Your task to perform on an android device: Search for sushi restaurants on Maps Image 0: 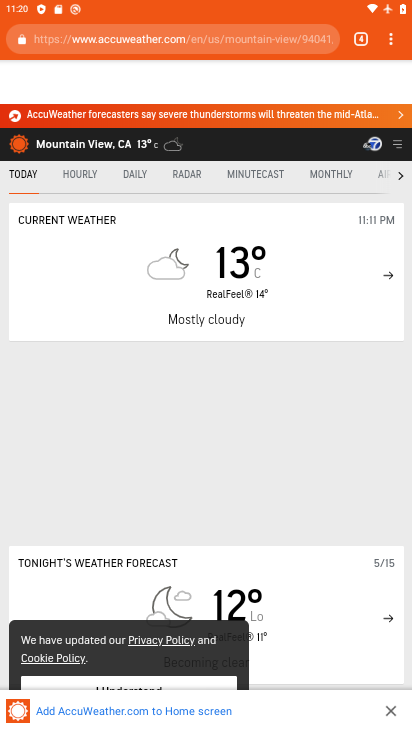
Step 0: press home button
Your task to perform on an android device: Search for sushi restaurants on Maps Image 1: 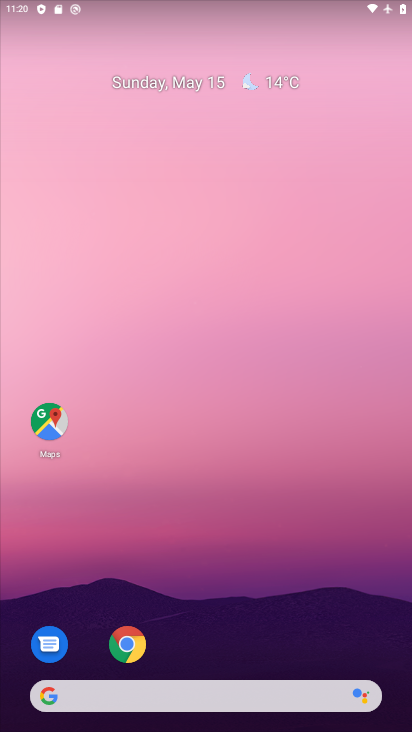
Step 1: click (60, 432)
Your task to perform on an android device: Search for sushi restaurants on Maps Image 2: 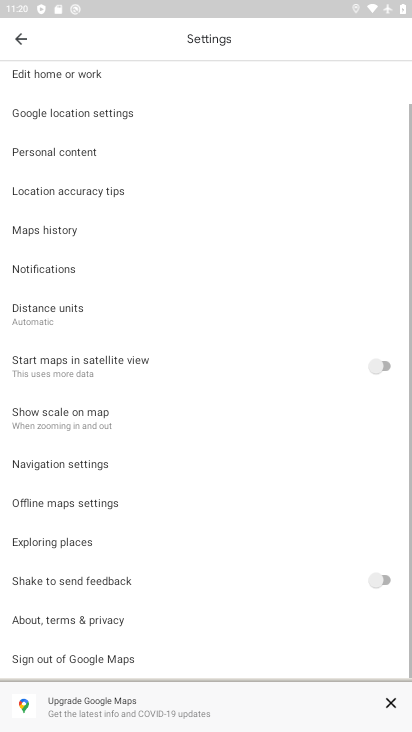
Step 2: press back button
Your task to perform on an android device: Search for sushi restaurants on Maps Image 3: 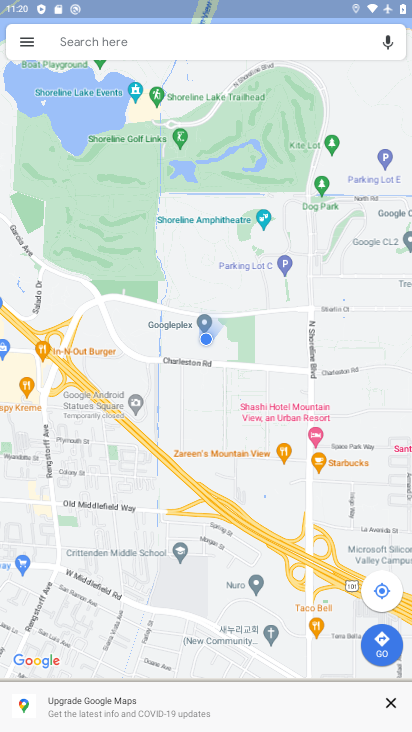
Step 3: click (119, 39)
Your task to perform on an android device: Search for sushi restaurants on Maps Image 4: 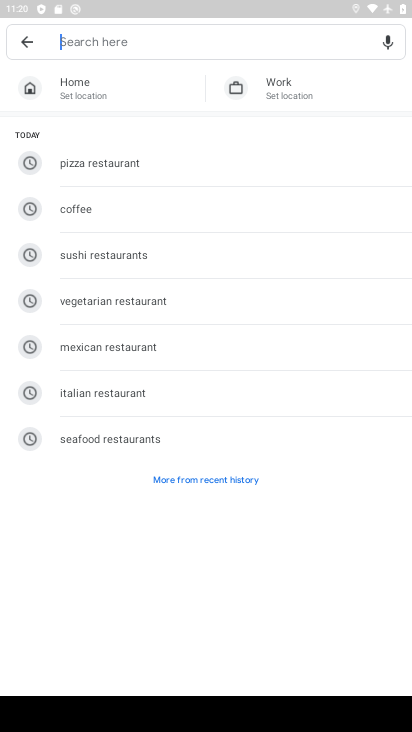
Step 4: click (70, 251)
Your task to perform on an android device: Search for sushi restaurants on Maps Image 5: 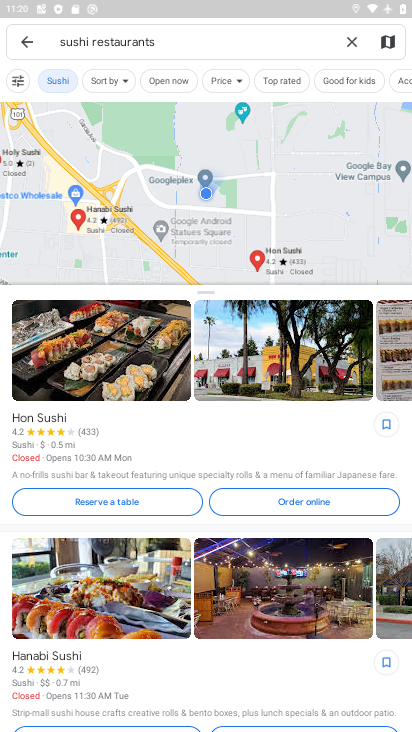
Step 5: task complete